Your task to perform on an android device: Go to network settings Image 0: 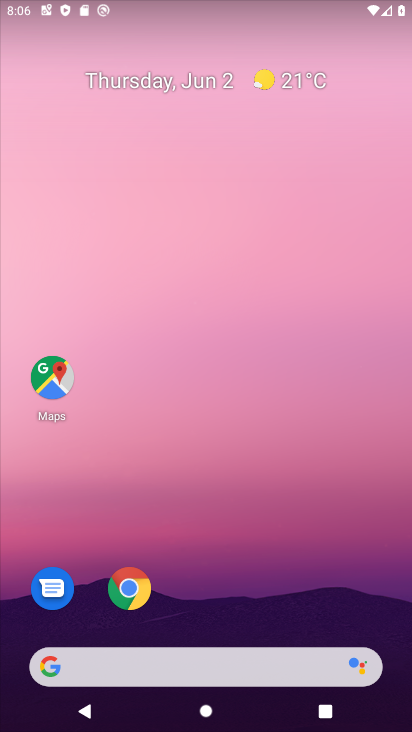
Step 0: drag from (290, 633) to (300, 349)
Your task to perform on an android device: Go to network settings Image 1: 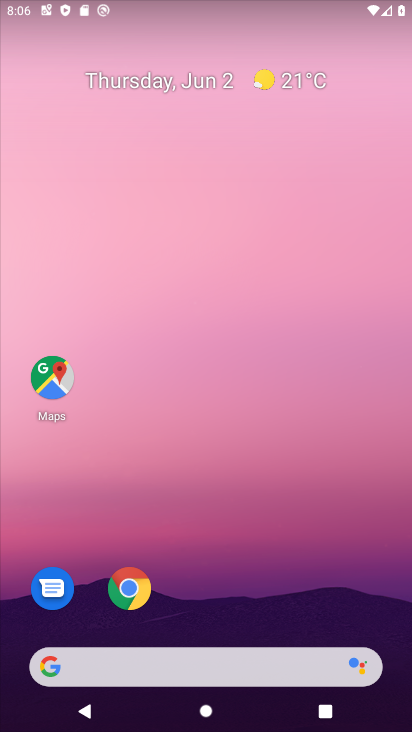
Step 1: drag from (190, 524) to (170, 182)
Your task to perform on an android device: Go to network settings Image 2: 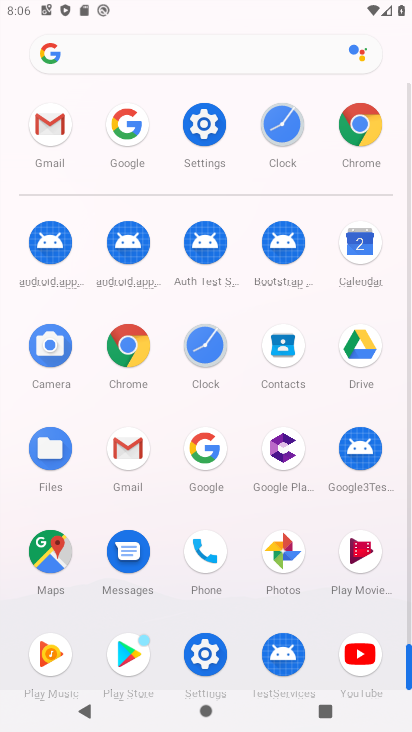
Step 2: click (201, 136)
Your task to perform on an android device: Go to network settings Image 3: 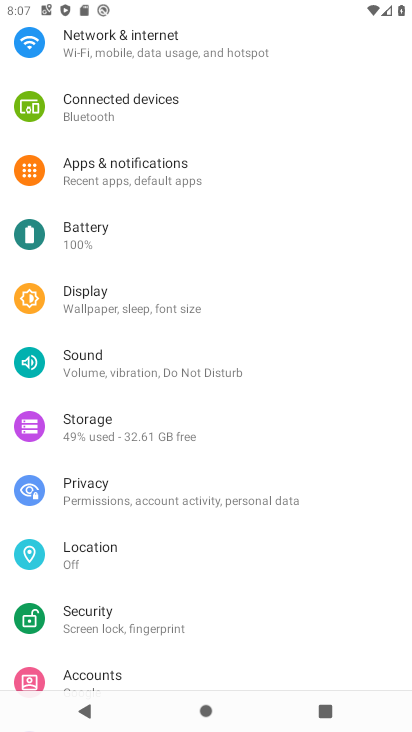
Step 3: click (232, 53)
Your task to perform on an android device: Go to network settings Image 4: 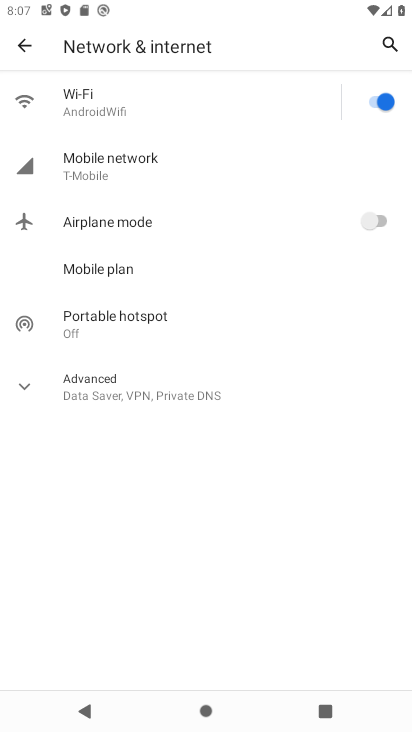
Step 4: task complete